Your task to perform on an android device: toggle javascript in the chrome app Image 0: 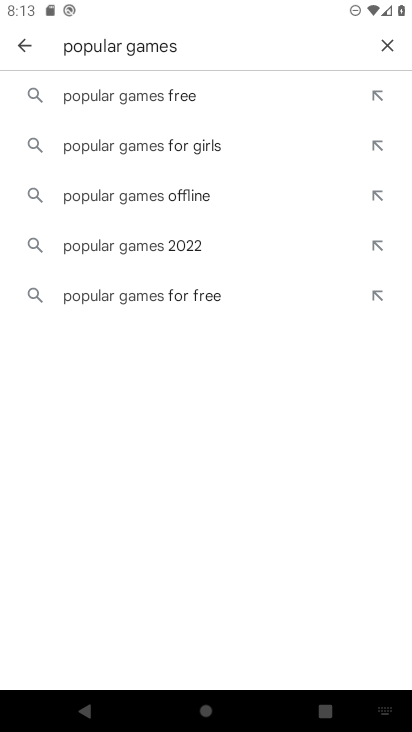
Step 0: press home button
Your task to perform on an android device: toggle javascript in the chrome app Image 1: 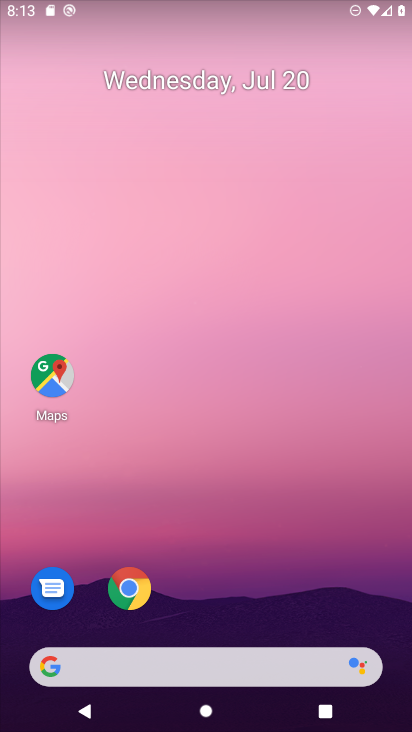
Step 1: click (121, 593)
Your task to perform on an android device: toggle javascript in the chrome app Image 2: 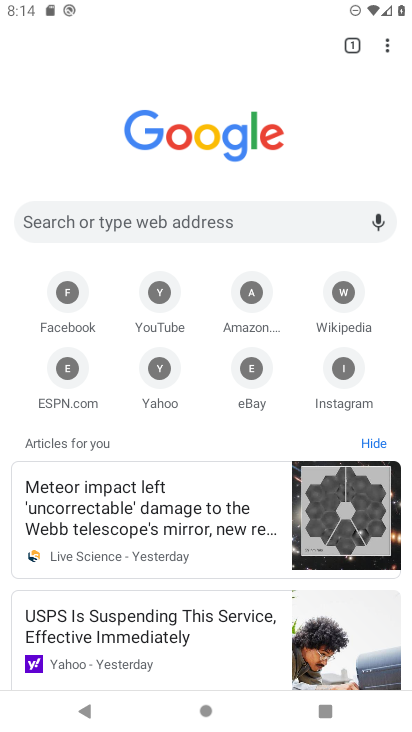
Step 2: click (394, 53)
Your task to perform on an android device: toggle javascript in the chrome app Image 3: 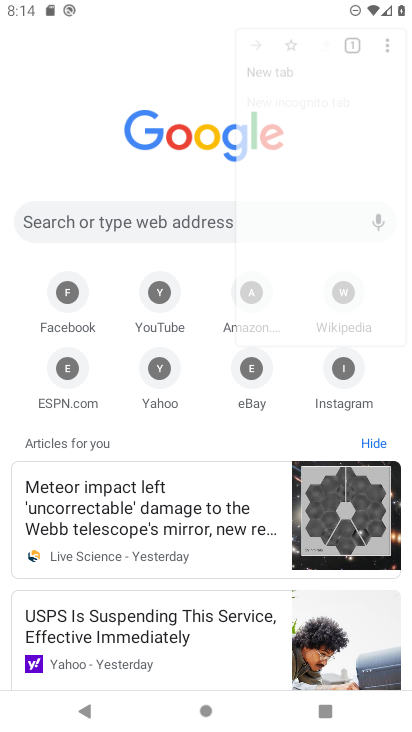
Step 3: click (395, 49)
Your task to perform on an android device: toggle javascript in the chrome app Image 4: 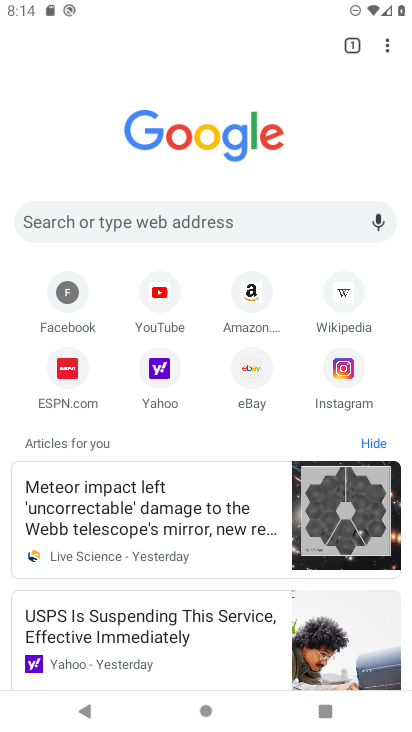
Step 4: click (390, 45)
Your task to perform on an android device: toggle javascript in the chrome app Image 5: 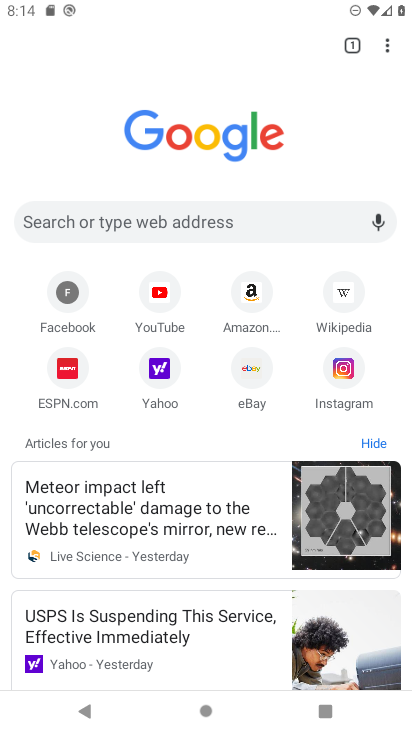
Step 5: click (392, 45)
Your task to perform on an android device: toggle javascript in the chrome app Image 6: 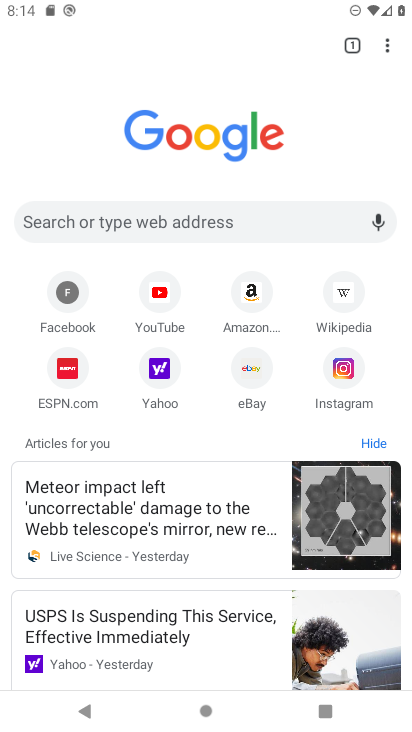
Step 6: click (384, 44)
Your task to perform on an android device: toggle javascript in the chrome app Image 7: 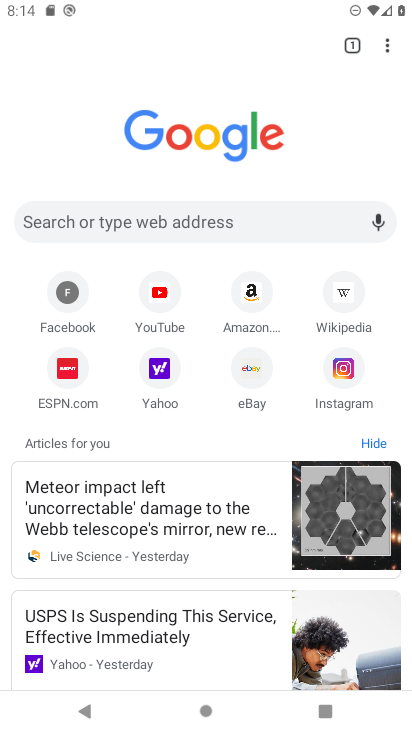
Step 7: click (391, 43)
Your task to perform on an android device: toggle javascript in the chrome app Image 8: 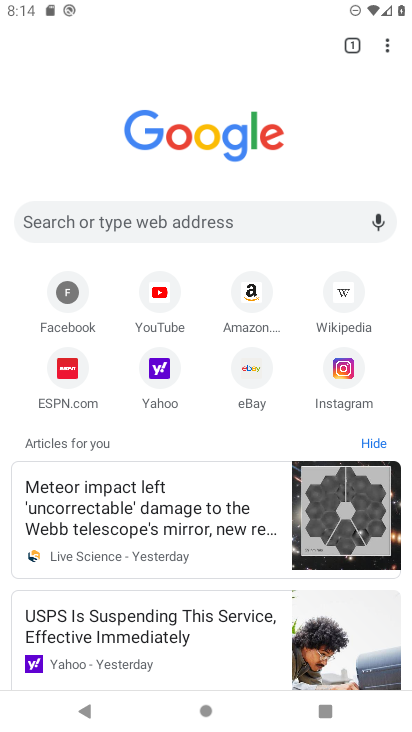
Step 8: click (387, 43)
Your task to perform on an android device: toggle javascript in the chrome app Image 9: 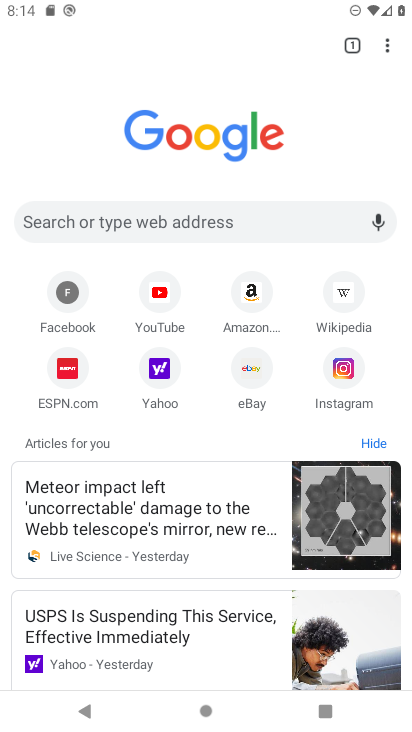
Step 9: task complete